Your task to perform on an android device: Go to Yahoo.com Image 0: 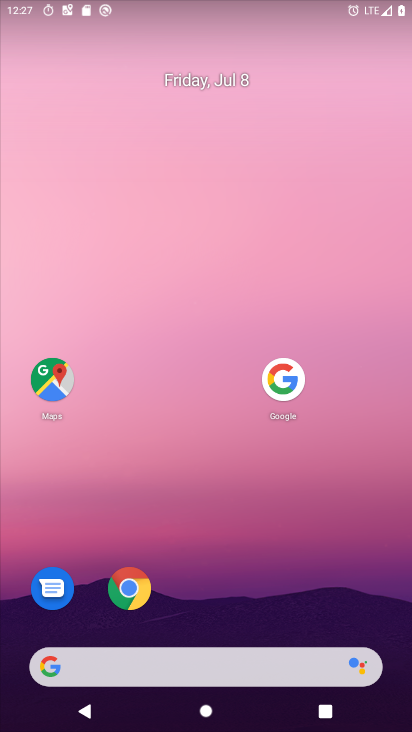
Step 0: click (133, 595)
Your task to perform on an android device: Go to Yahoo.com Image 1: 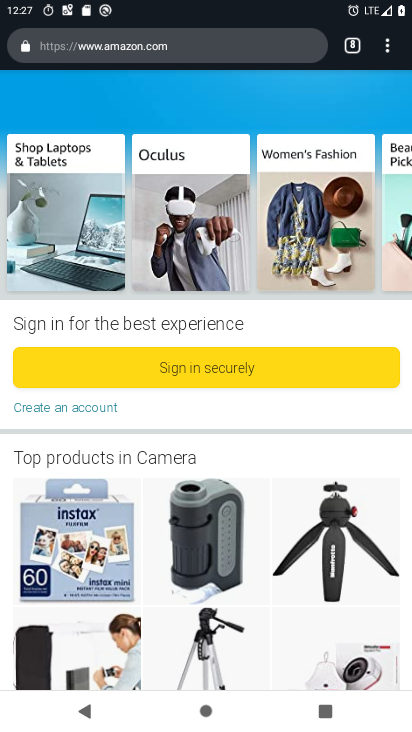
Step 1: drag from (385, 43) to (221, 91)
Your task to perform on an android device: Go to Yahoo.com Image 2: 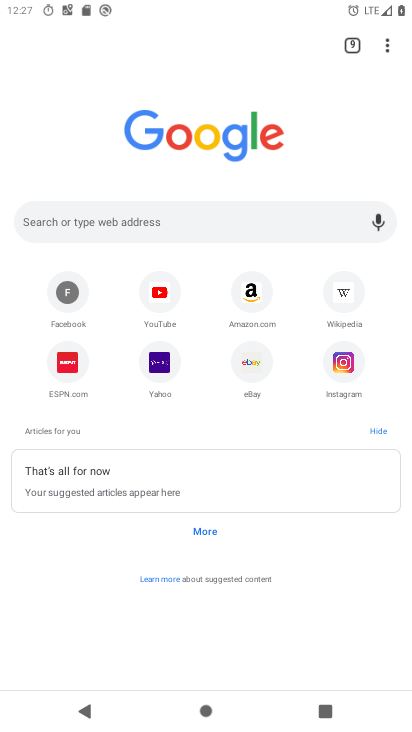
Step 2: click (157, 358)
Your task to perform on an android device: Go to Yahoo.com Image 3: 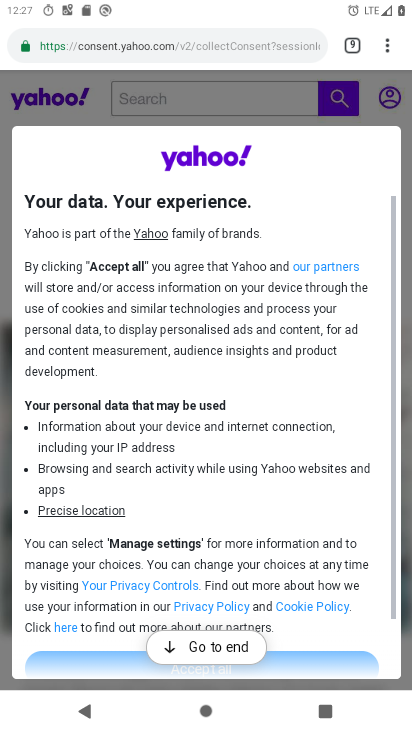
Step 3: click (213, 646)
Your task to perform on an android device: Go to Yahoo.com Image 4: 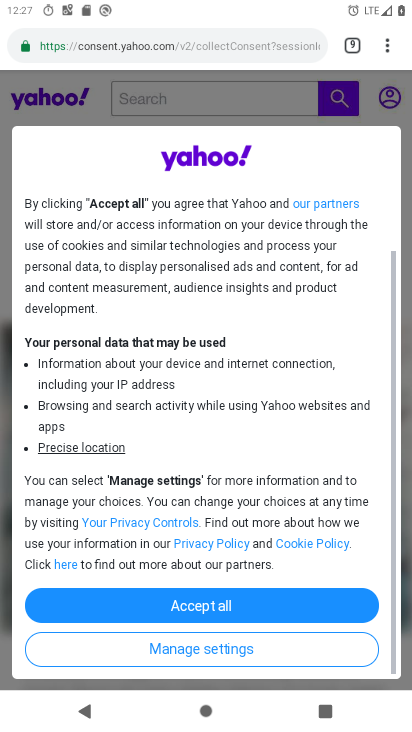
Step 4: click (238, 603)
Your task to perform on an android device: Go to Yahoo.com Image 5: 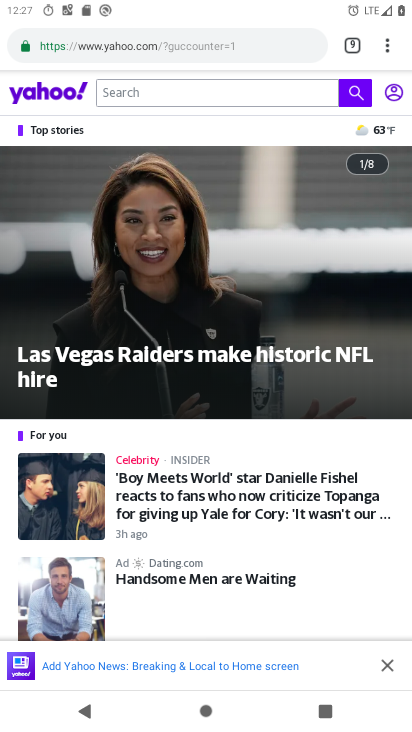
Step 5: task complete